Your task to perform on an android device: What is the recent news? Image 0: 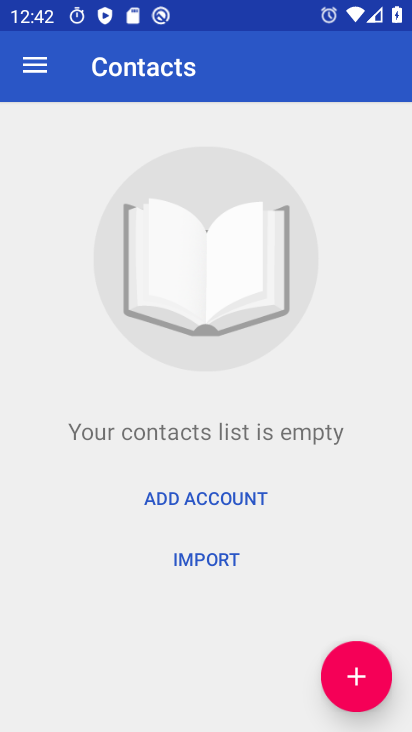
Step 0: press home button
Your task to perform on an android device: What is the recent news? Image 1: 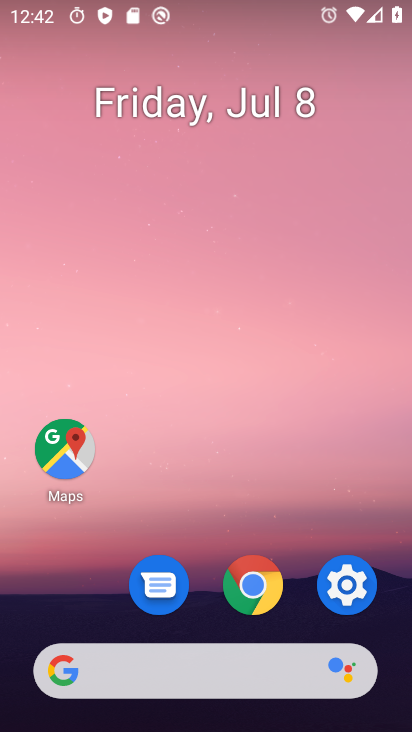
Step 1: drag from (296, 562) to (308, 194)
Your task to perform on an android device: What is the recent news? Image 2: 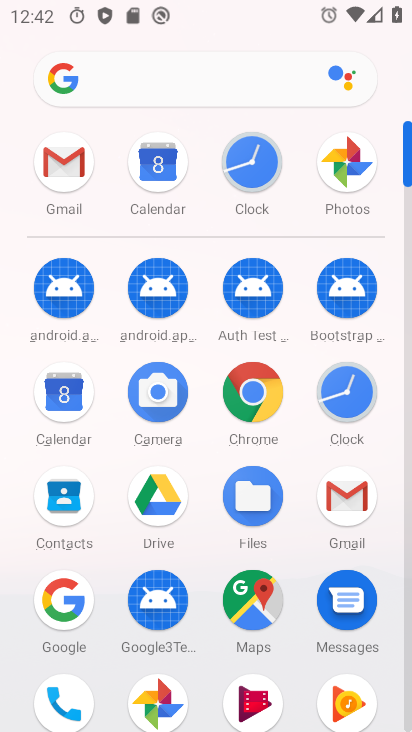
Step 2: click (129, 84)
Your task to perform on an android device: What is the recent news? Image 3: 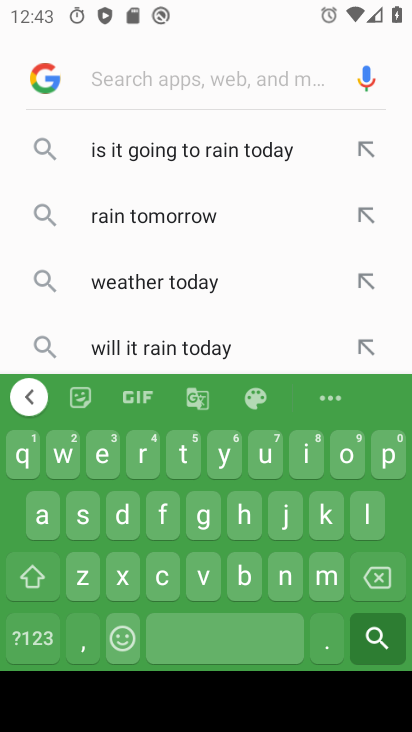
Step 3: click (143, 441)
Your task to perform on an android device: What is the recent news? Image 4: 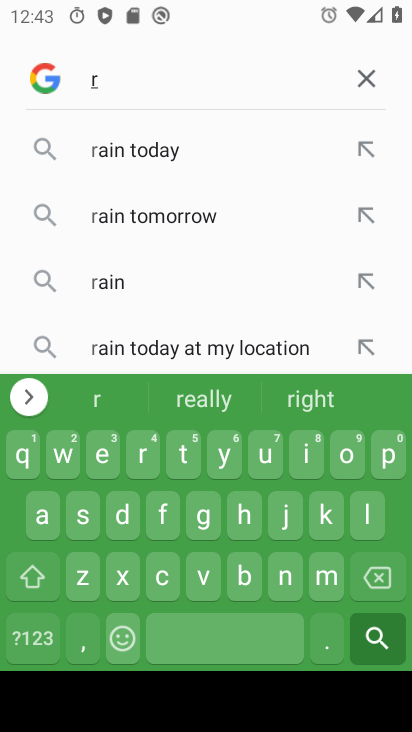
Step 4: click (99, 456)
Your task to perform on an android device: What is the recent news? Image 5: 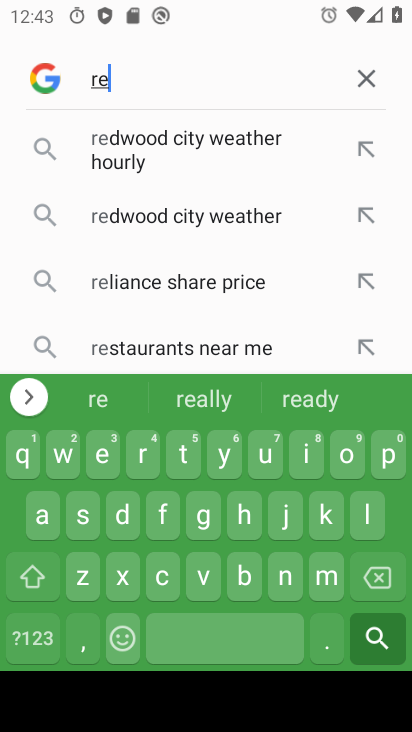
Step 5: click (165, 578)
Your task to perform on an android device: What is the recent news? Image 6: 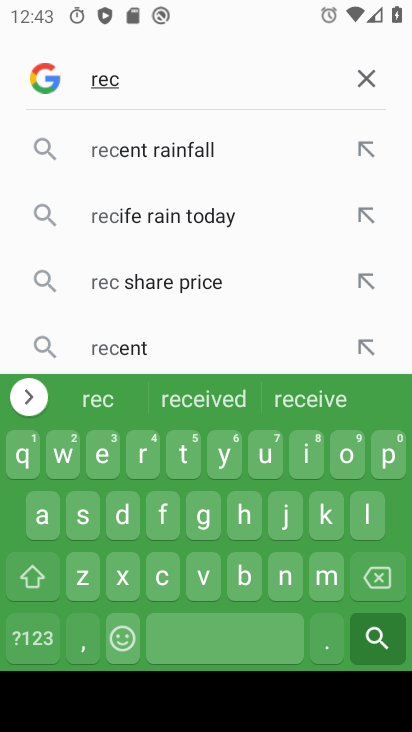
Step 6: click (102, 458)
Your task to perform on an android device: What is the recent news? Image 7: 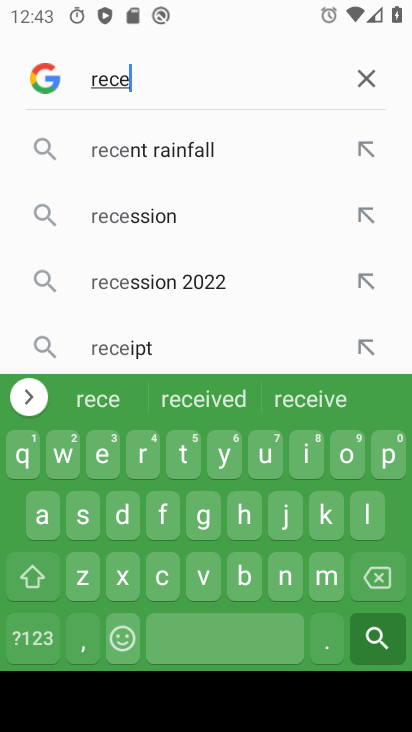
Step 7: click (278, 579)
Your task to perform on an android device: What is the recent news? Image 8: 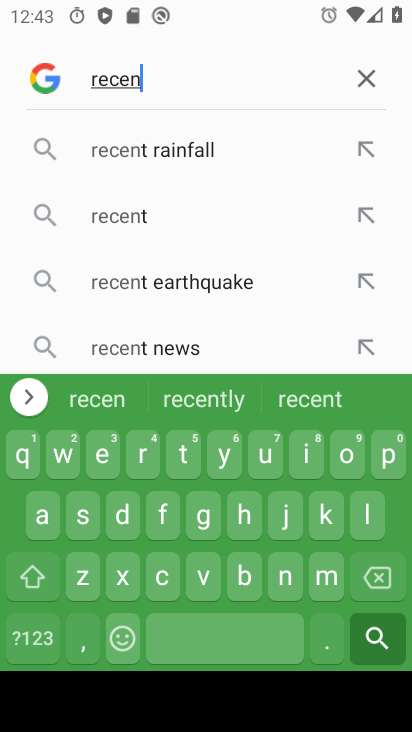
Step 8: click (320, 396)
Your task to perform on an android device: What is the recent news? Image 9: 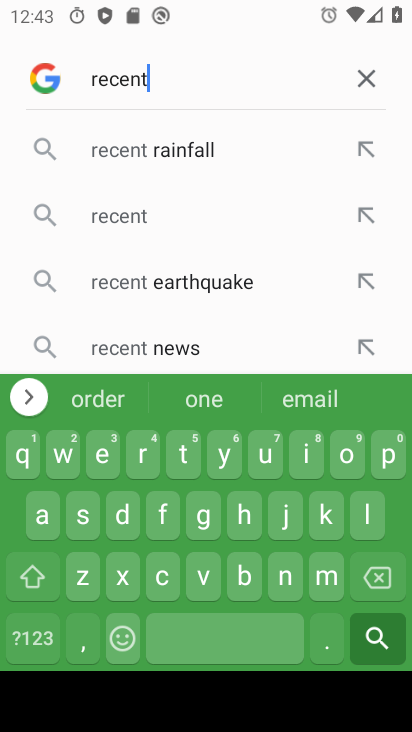
Step 9: click (191, 344)
Your task to perform on an android device: What is the recent news? Image 10: 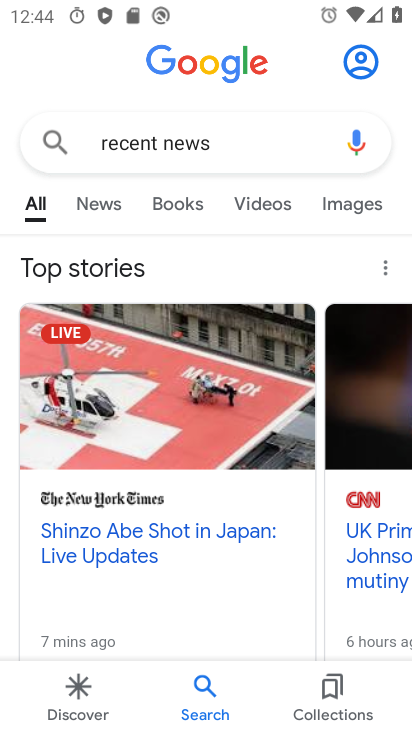
Step 10: task complete